Your task to perform on an android device: toggle improve location accuracy Image 0: 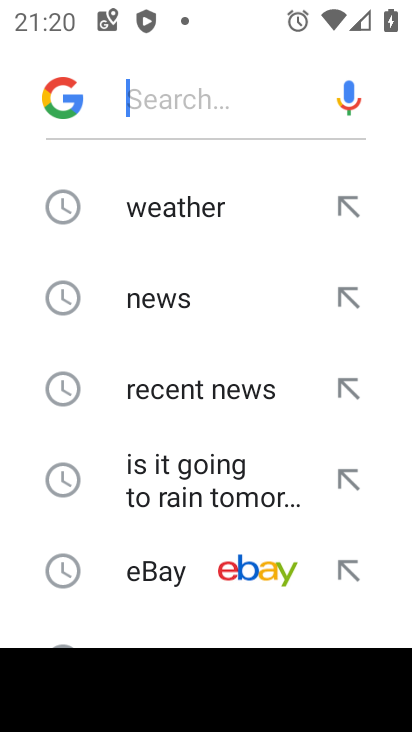
Step 0: press home button
Your task to perform on an android device: toggle improve location accuracy Image 1: 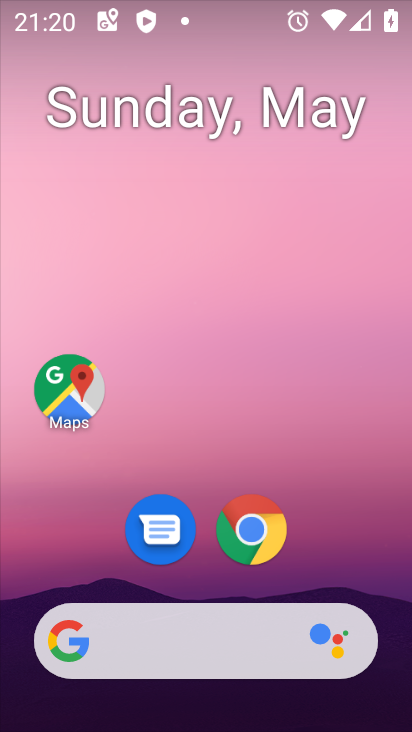
Step 1: drag from (314, 239) to (297, 19)
Your task to perform on an android device: toggle improve location accuracy Image 2: 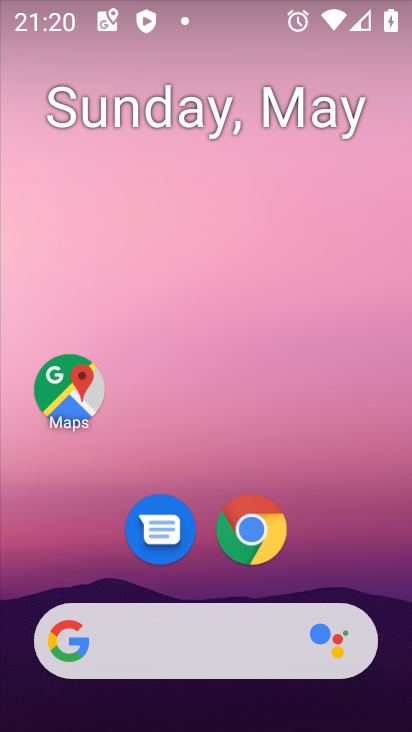
Step 2: drag from (378, 606) to (338, 22)
Your task to perform on an android device: toggle improve location accuracy Image 3: 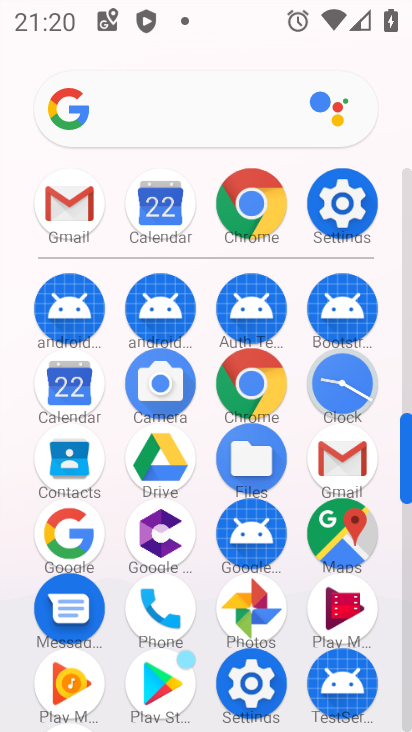
Step 3: click (343, 210)
Your task to perform on an android device: toggle improve location accuracy Image 4: 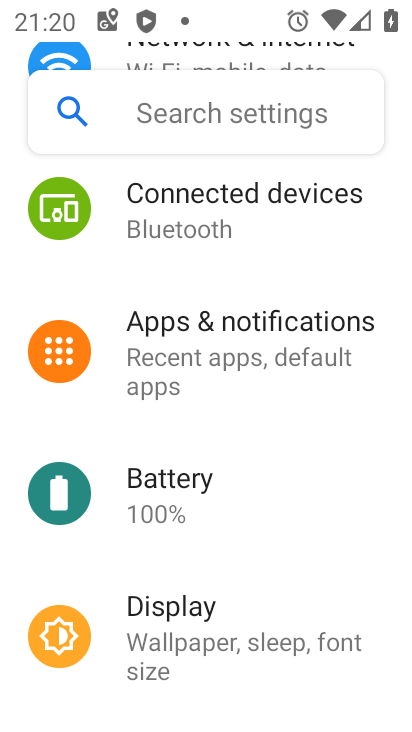
Step 4: drag from (321, 612) to (267, 201)
Your task to perform on an android device: toggle improve location accuracy Image 5: 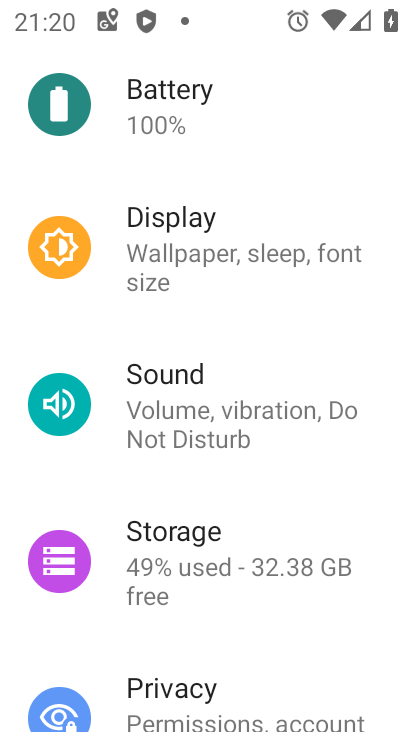
Step 5: drag from (260, 386) to (219, 139)
Your task to perform on an android device: toggle improve location accuracy Image 6: 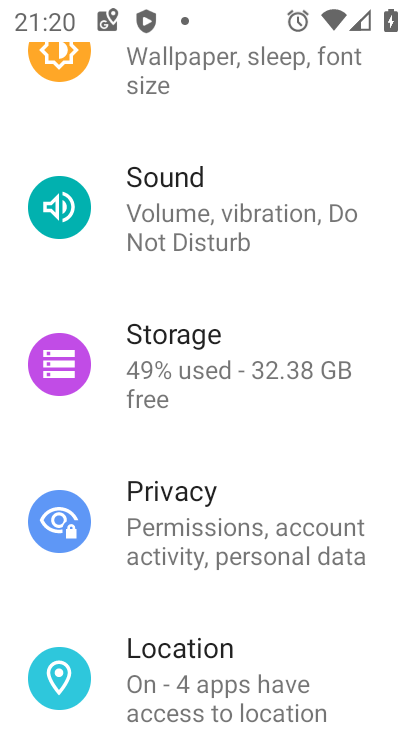
Step 6: click (195, 666)
Your task to perform on an android device: toggle improve location accuracy Image 7: 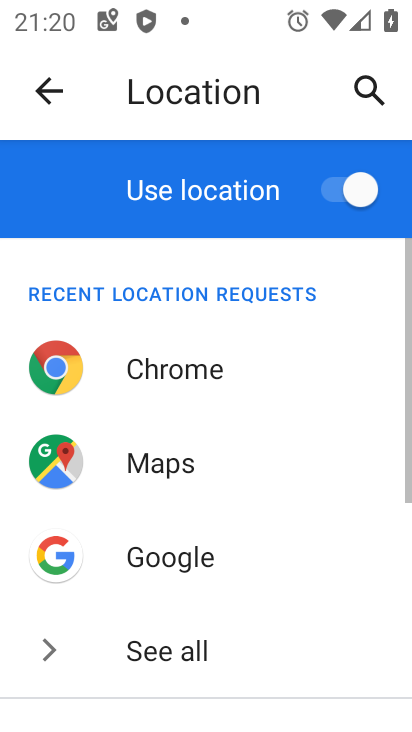
Step 7: drag from (327, 619) to (275, 149)
Your task to perform on an android device: toggle improve location accuracy Image 8: 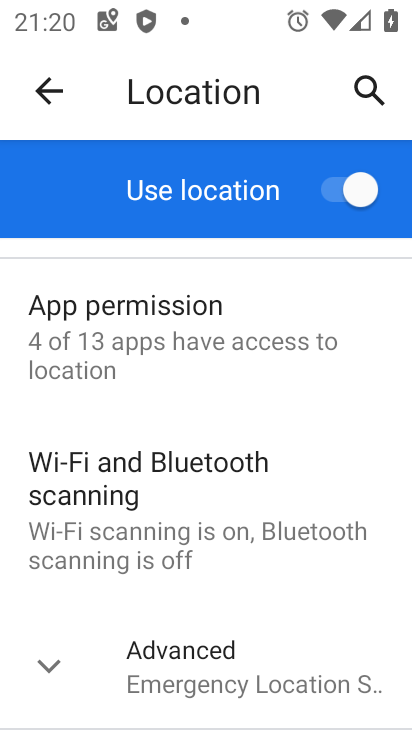
Step 8: drag from (323, 574) to (283, 257)
Your task to perform on an android device: toggle improve location accuracy Image 9: 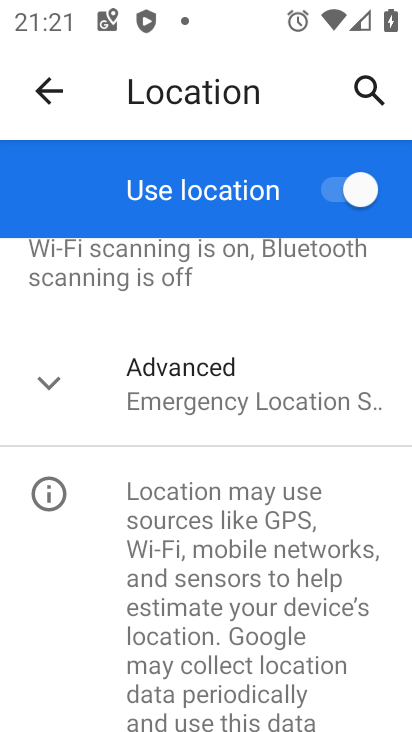
Step 9: click (45, 395)
Your task to perform on an android device: toggle improve location accuracy Image 10: 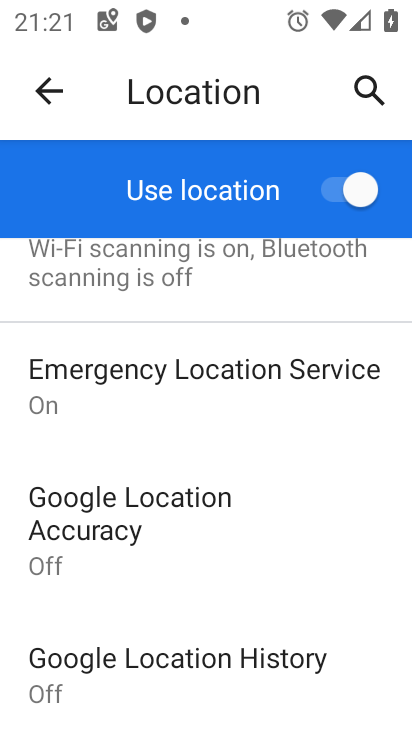
Step 10: click (73, 534)
Your task to perform on an android device: toggle improve location accuracy Image 11: 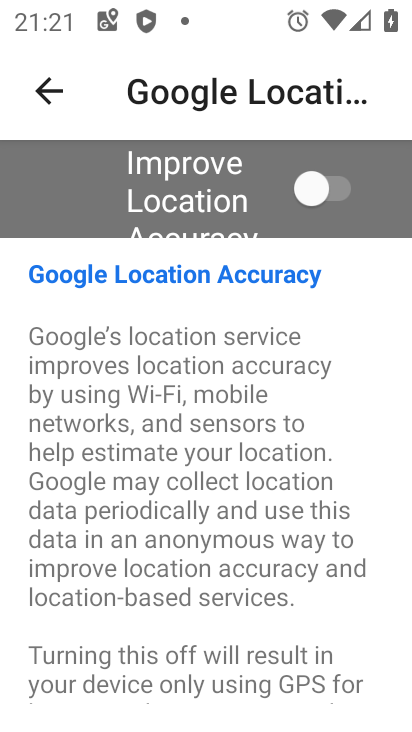
Step 11: click (348, 175)
Your task to perform on an android device: toggle improve location accuracy Image 12: 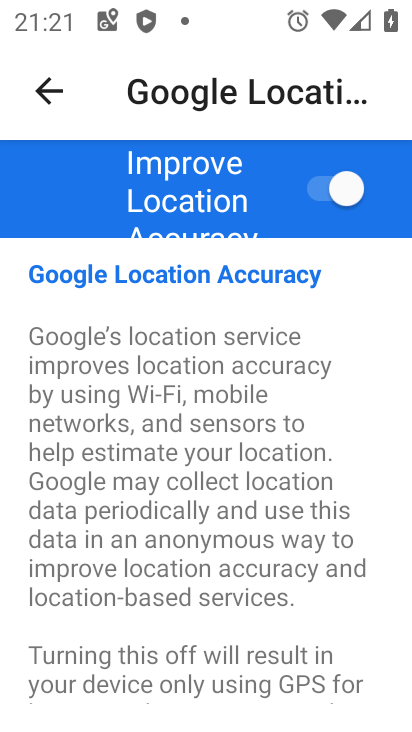
Step 12: task complete